Your task to perform on an android device: toggle airplane mode Image 0: 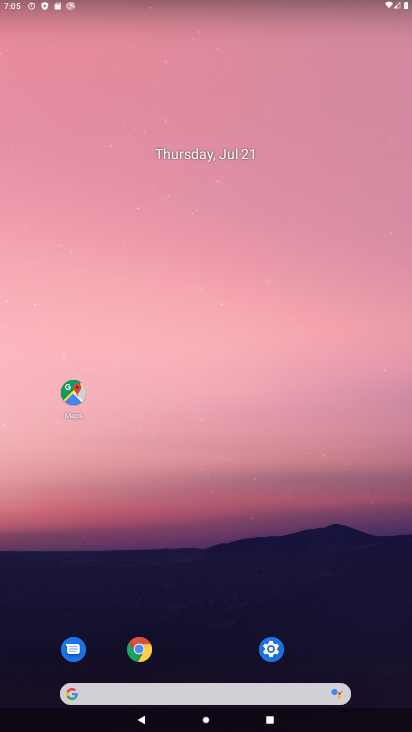
Step 0: click (271, 644)
Your task to perform on an android device: toggle airplane mode Image 1: 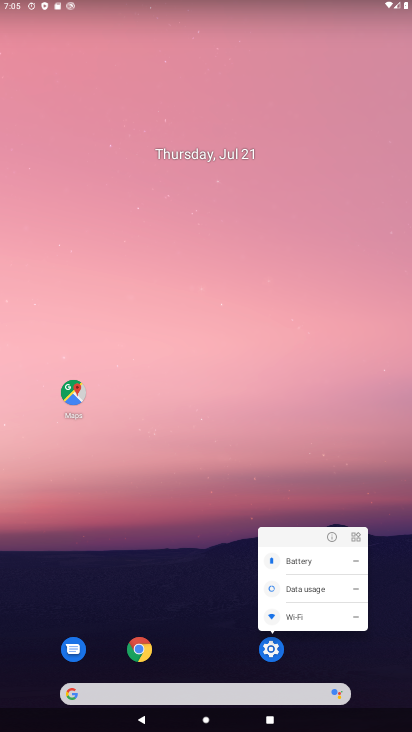
Step 1: click (265, 657)
Your task to perform on an android device: toggle airplane mode Image 2: 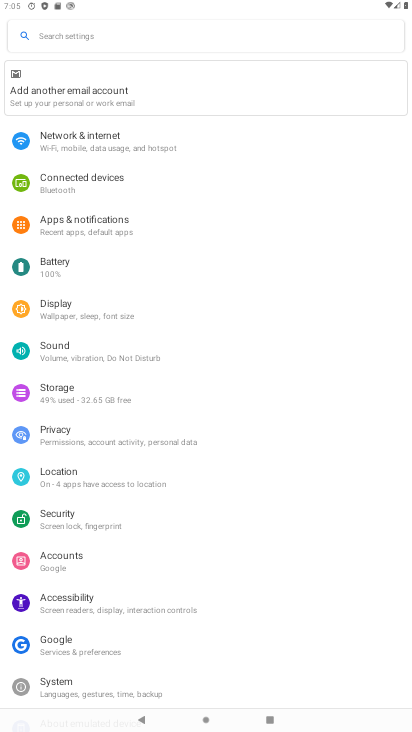
Step 2: click (70, 134)
Your task to perform on an android device: toggle airplane mode Image 3: 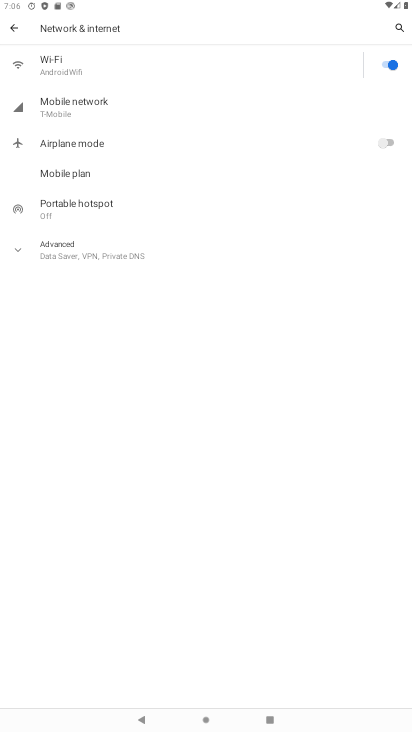
Step 3: task complete